Your task to perform on an android device: Turn off the flashlight Image 0: 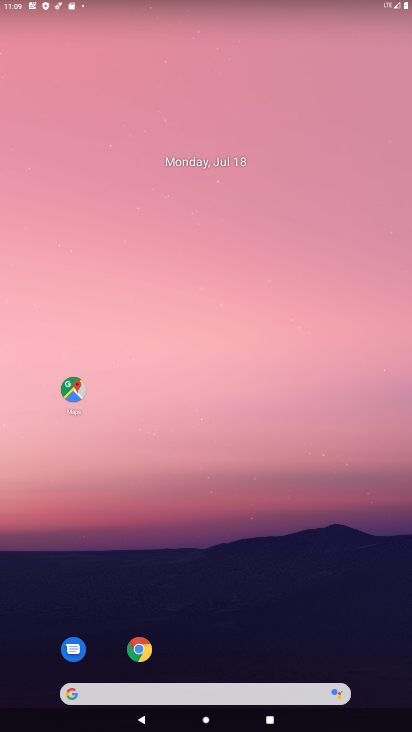
Step 0: drag from (221, 3) to (177, 723)
Your task to perform on an android device: Turn off the flashlight Image 1: 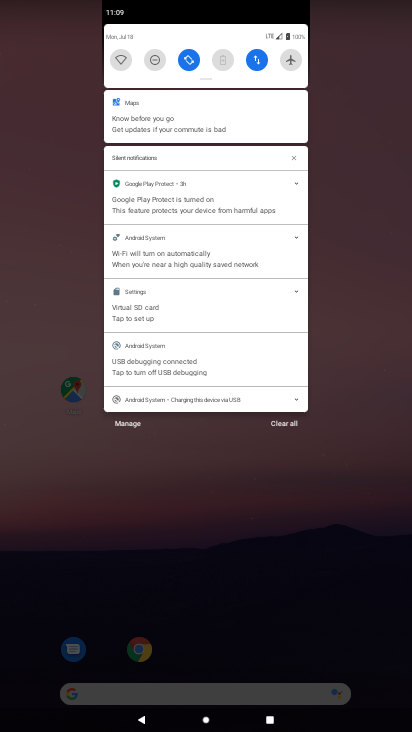
Step 1: task complete